Your task to perform on an android device: turn pop-ups on in chrome Image 0: 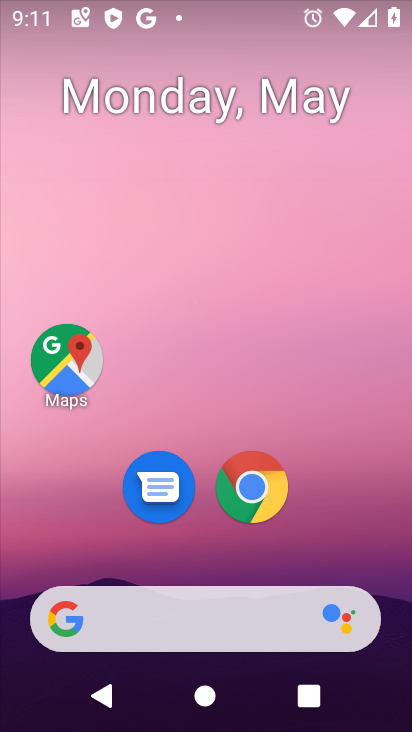
Step 0: click (259, 483)
Your task to perform on an android device: turn pop-ups on in chrome Image 1: 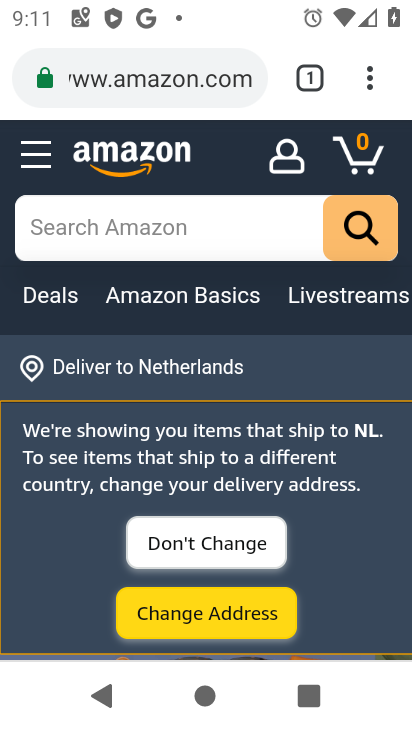
Step 1: click (379, 73)
Your task to perform on an android device: turn pop-ups on in chrome Image 2: 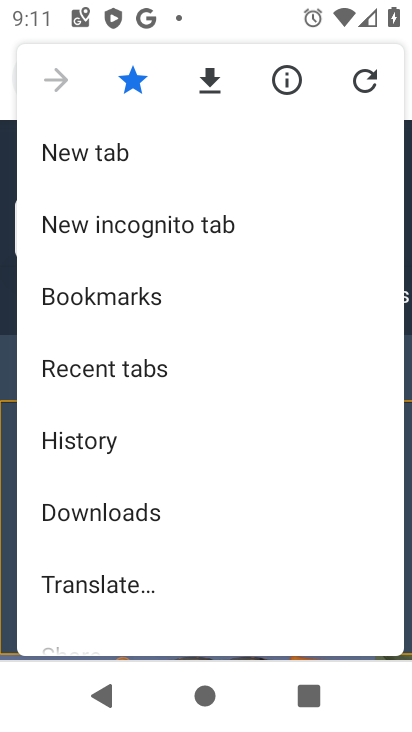
Step 2: drag from (100, 590) to (150, 258)
Your task to perform on an android device: turn pop-ups on in chrome Image 3: 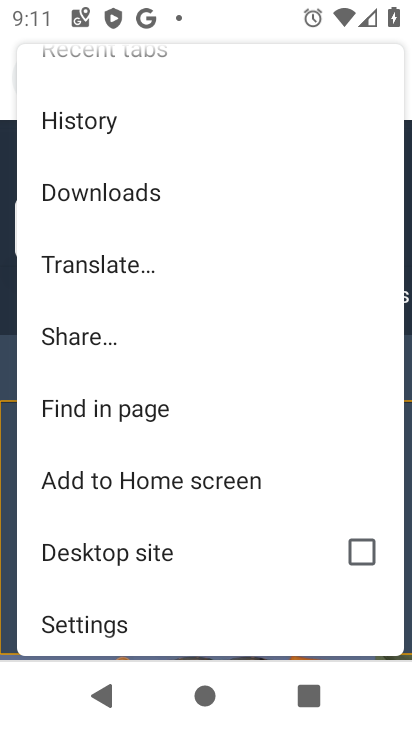
Step 3: click (97, 634)
Your task to perform on an android device: turn pop-ups on in chrome Image 4: 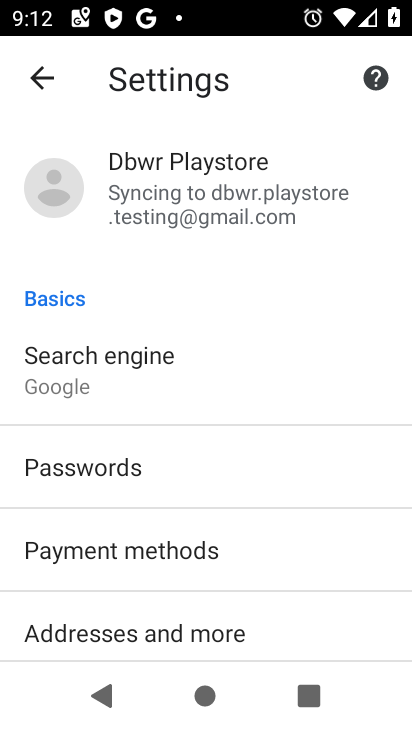
Step 4: drag from (97, 634) to (282, 259)
Your task to perform on an android device: turn pop-ups on in chrome Image 5: 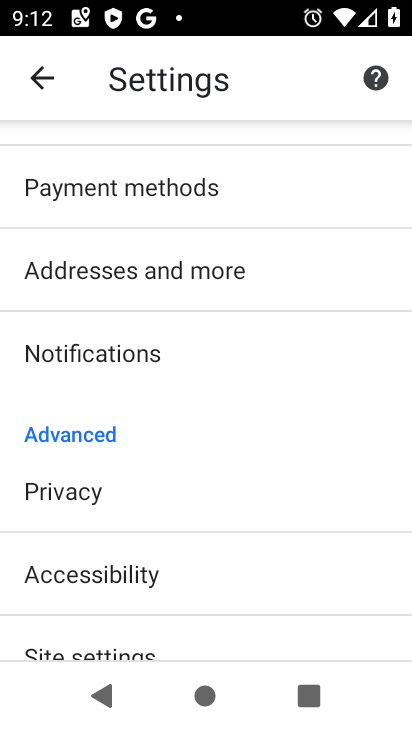
Step 5: click (90, 648)
Your task to perform on an android device: turn pop-ups on in chrome Image 6: 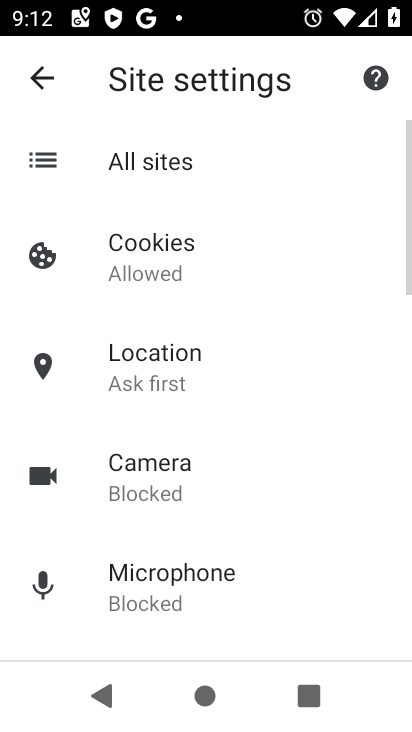
Step 6: drag from (90, 648) to (263, 199)
Your task to perform on an android device: turn pop-ups on in chrome Image 7: 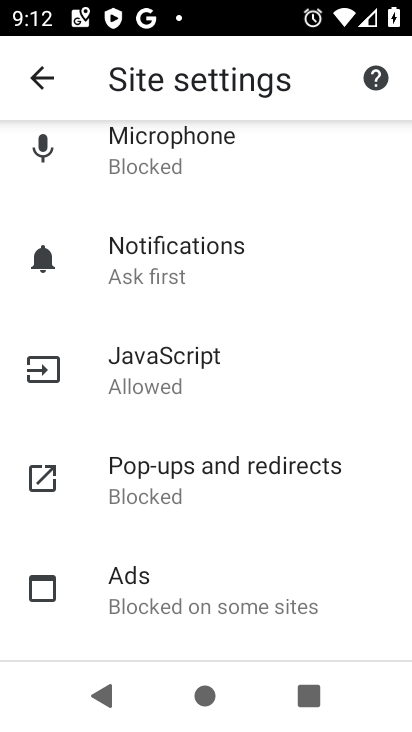
Step 7: click (179, 503)
Your task to perform on an android device: turn pop-ups on in chrome Image 8: 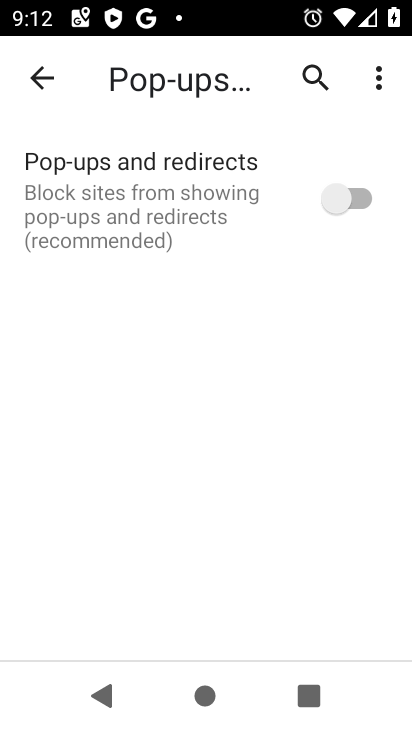
Step 8: click (366, 202)
Your task to perform on an android device: turn pop-ups on in chrome Image 9: 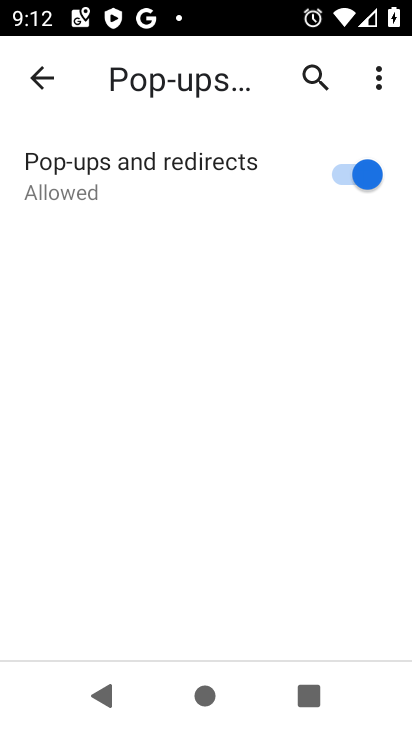
Step 9: click (366, 202)
Your task to perform on an android device: turn pop-ups on in chrome Image 10: 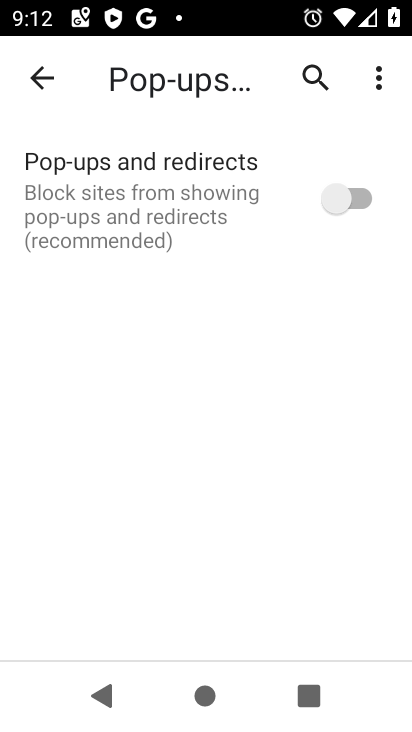
Step 10: click (372, 206)
Your task to perform on an android device: turn pop-ups on in chrome Image 11: 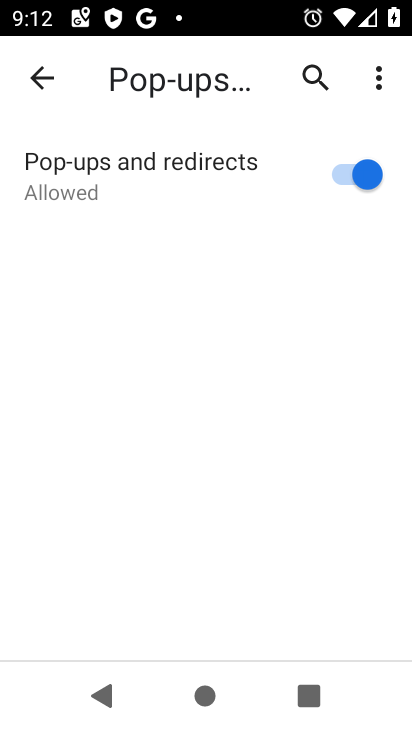
Step 11: task complete